Your task to perform on an android device: Open wifi settings Image 0: 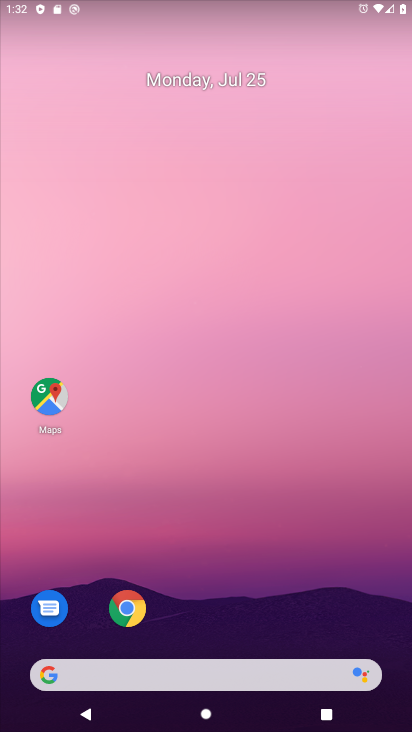
Step 0: drag from (277, 581) to (206, 16)
Your task to perform on an android device: Open wifi settings Image 1: 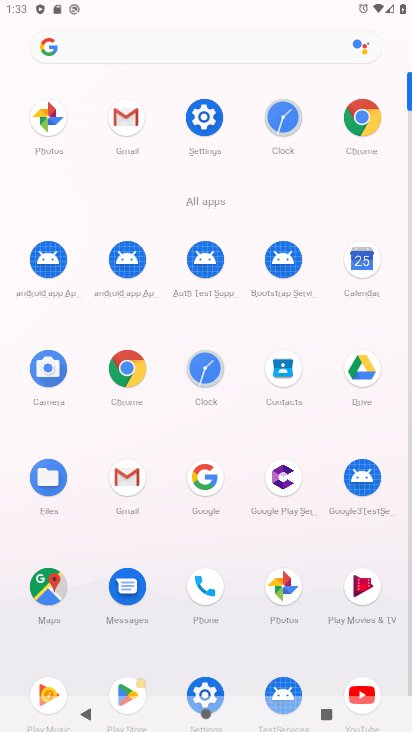
Step 1: click (199, 112)
Your task to perform on an android device: Open wifi settings Image 2: 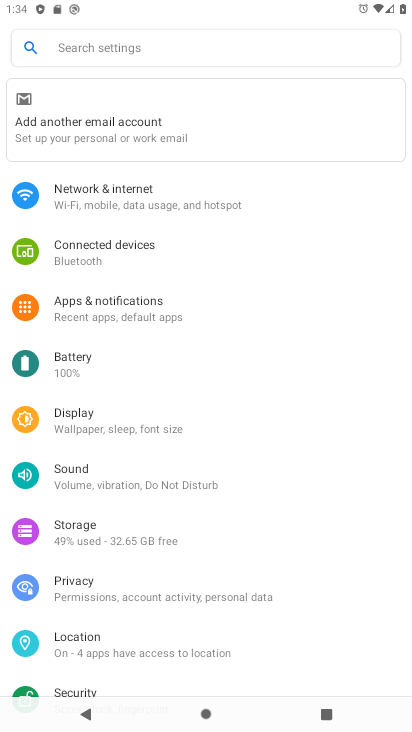
Step 2: click (152, 202)
Your task to perform on an android device: Open wifi settings Image 3: 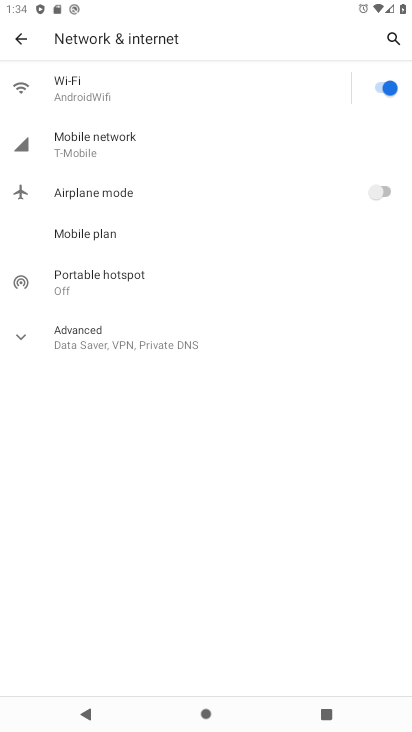
Step 3: click (155, 73)
Your task to perform on an android device: Open wifi settings Image 4: 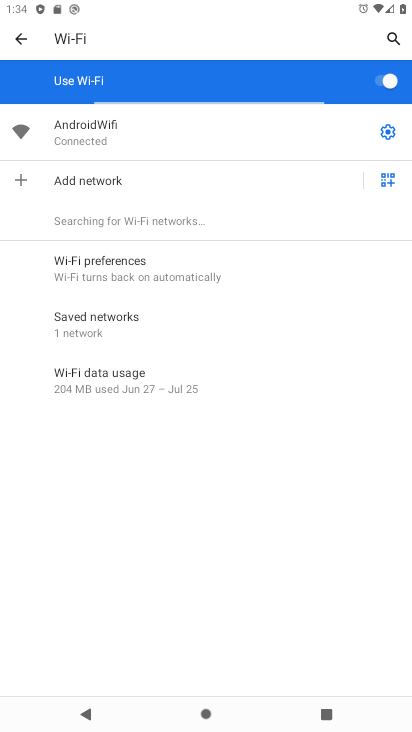
Step 4: click (379, 136)
Your task to perform on an android device: Open wifi settings Image 5: 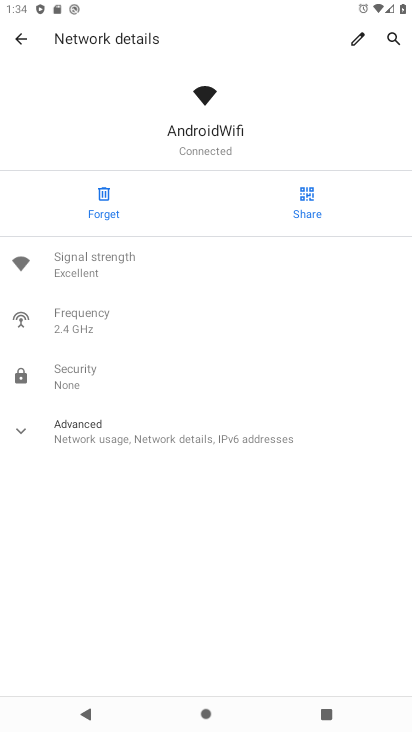
Step 5: task complete